Your task to perform on an android device: install app "Google Chrome" Image 0: 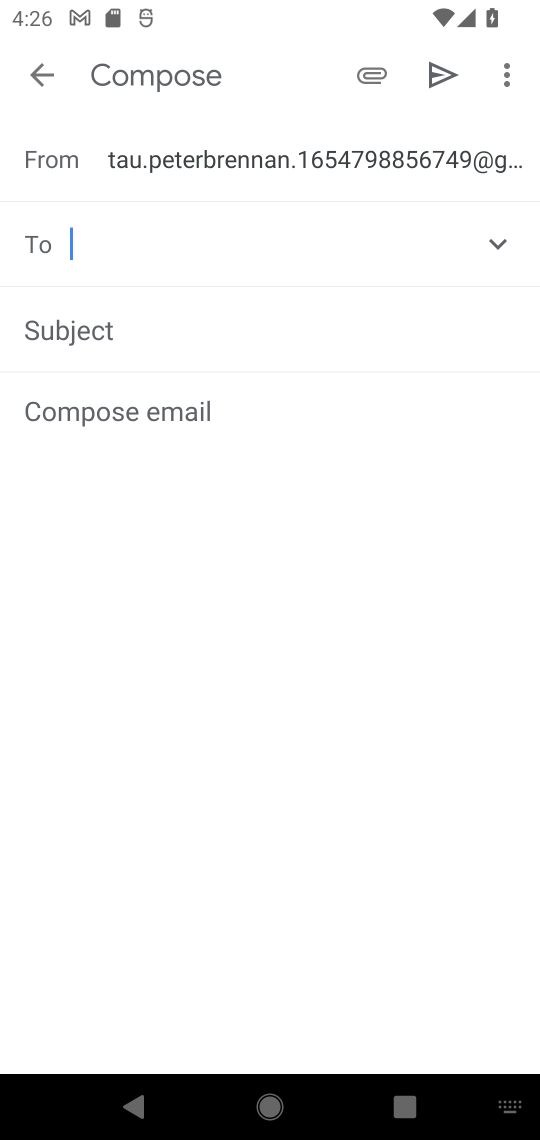
Step 0: press home button
Your task to perform on an android device: install app "Google Chrome" Image 1: 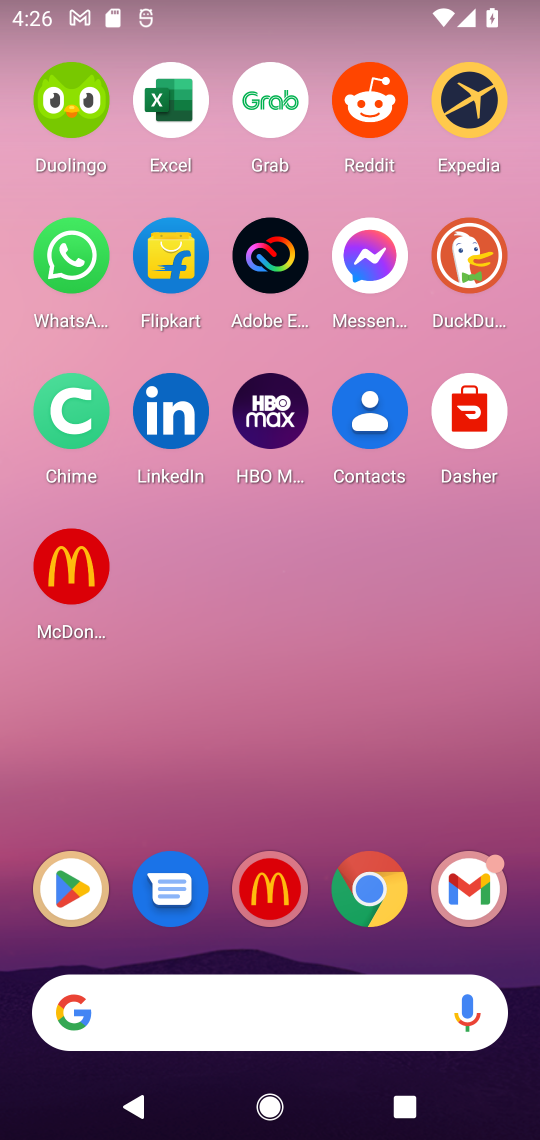
Step 1: drag from (351, 713) to (386, 55)
Your task to perform on an android device: install app "Google Chrome" Image 2: 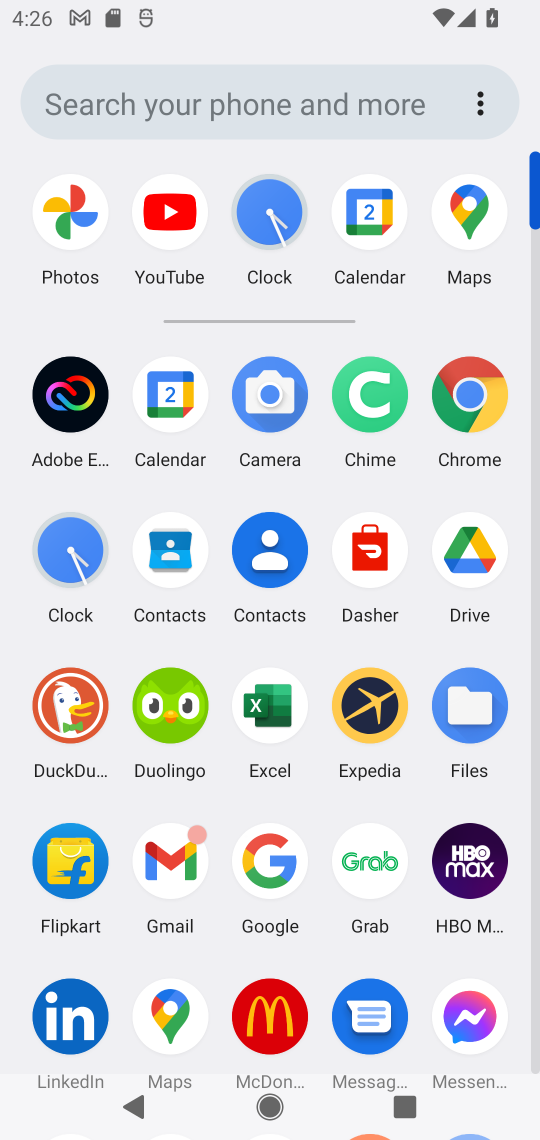
Step 2: drag from (505, 797) to (520, 406)
Your task to perform on an android device: install app "Google Chrome" Image 3: 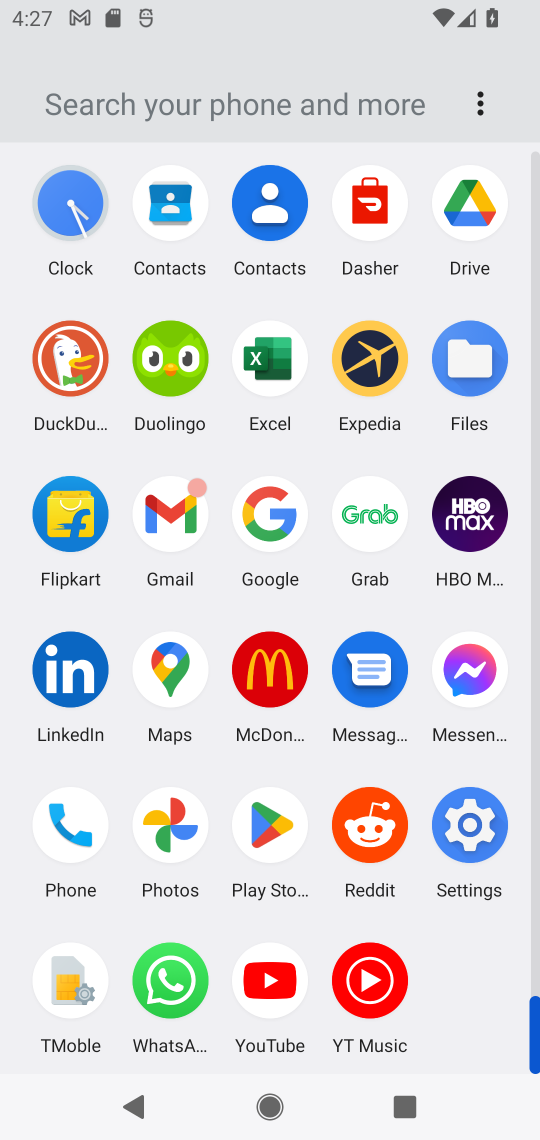
Step 3: click (276, 829)
Your task to perform on an android device: install app "Google Chrome" Image 4: 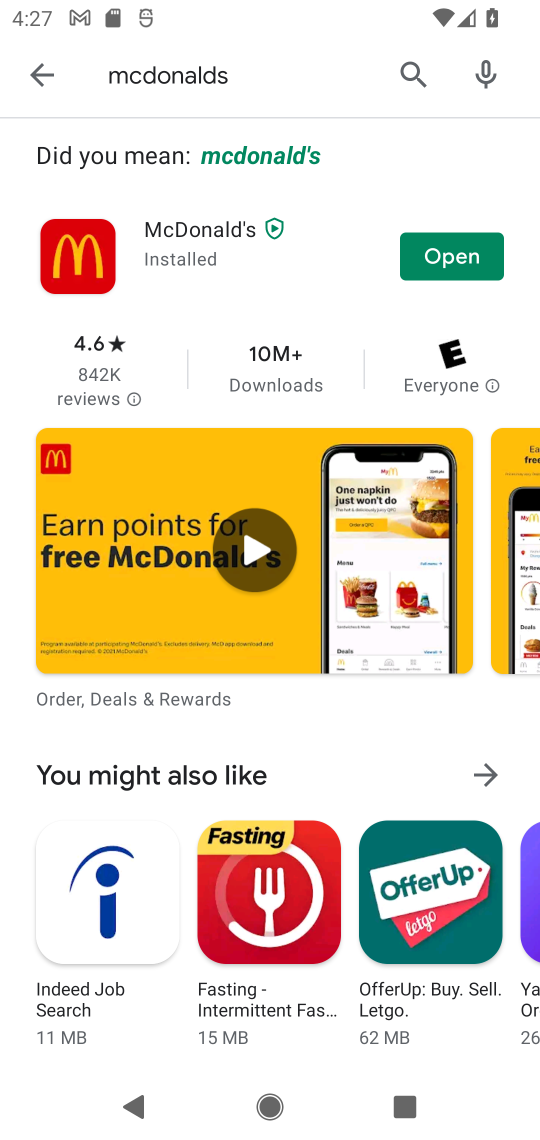
Step 4: click (410, 77)
Your task to perform on an android device: install app "Google Chrome" Image 5: 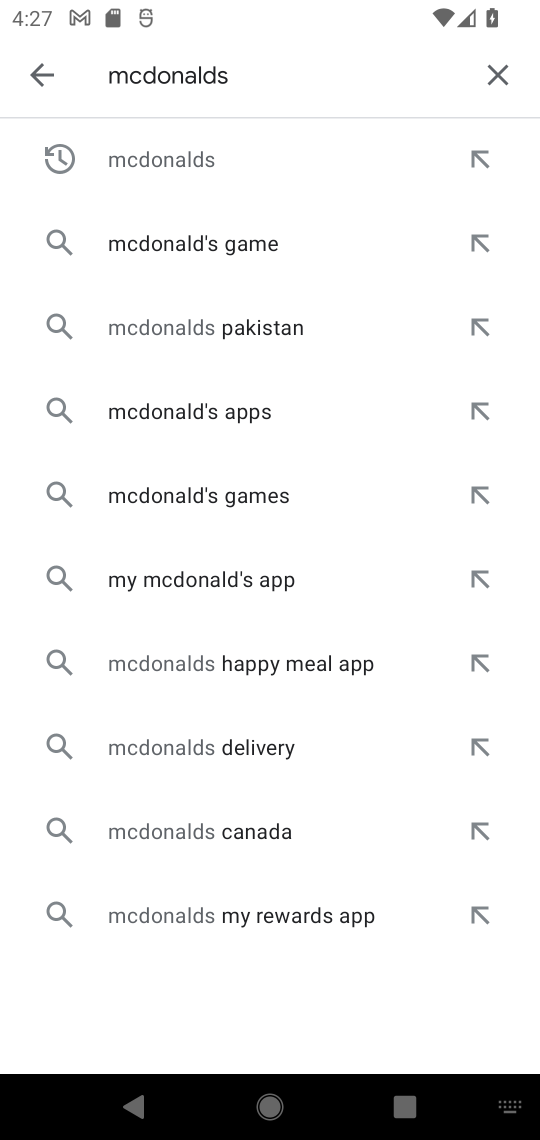
Step 5: click (499, 72)
Your task to perform on an android device: install app "Google Chrome" Image 6: 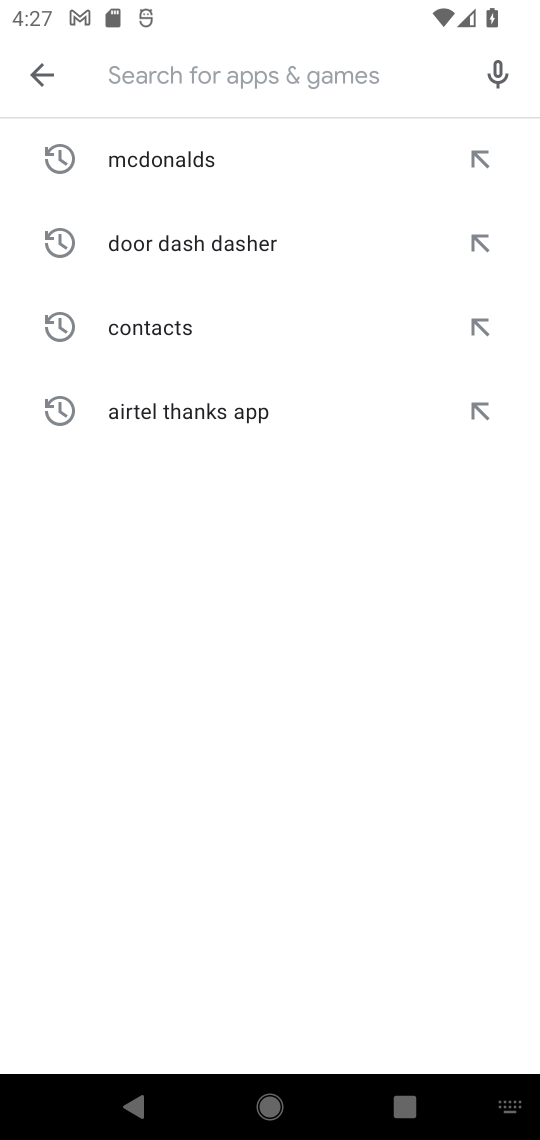
Step 6: type "google chrome"
Your task to perform on an android device: install app "Google Chrome" Image 7: 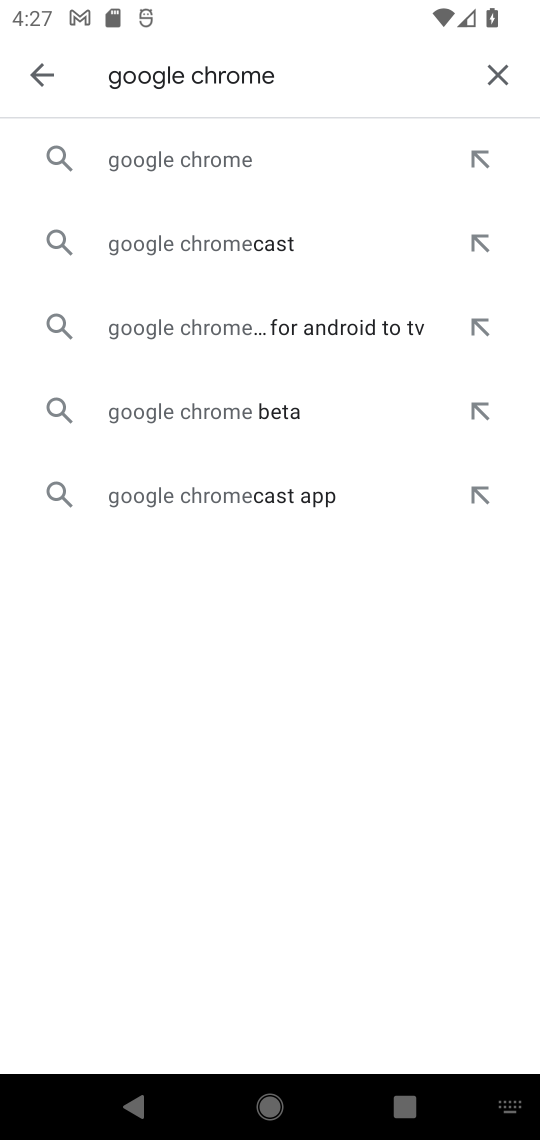
Step 7: click (252, 161)
Your task to perform on an android device: install app "Google Chrome" Image 8: 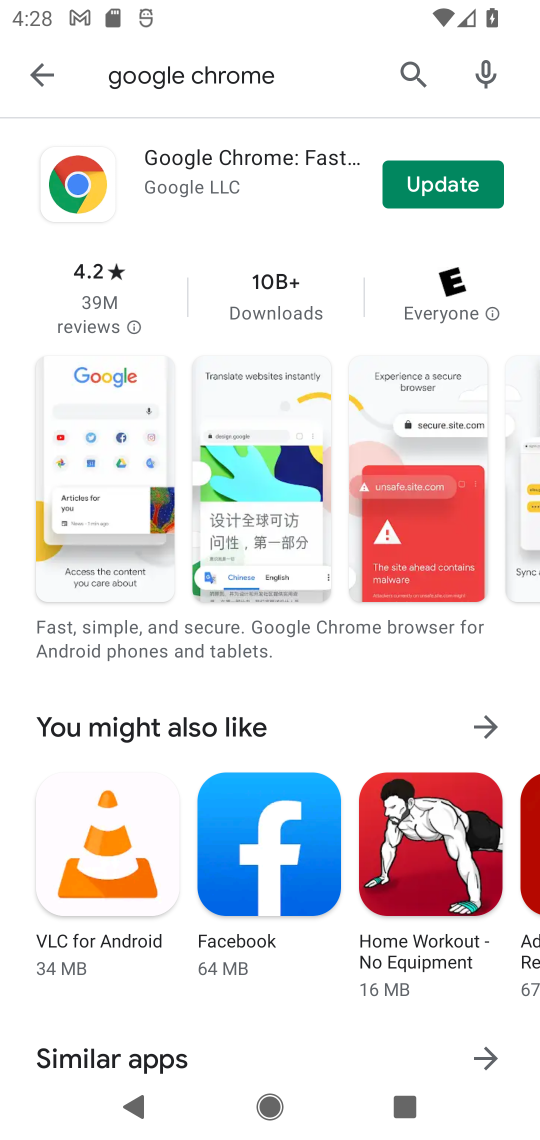
Step 8: task complete